Your task to perform on an android device: Open Maps and search for coffee Image 0: 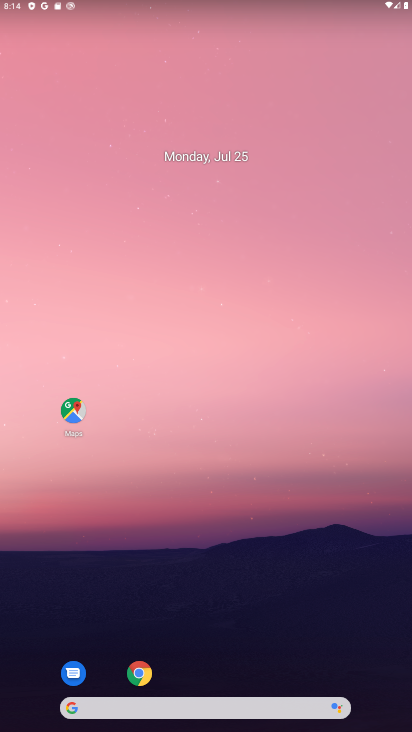
Step 0: click (91, 405)
Your task to perform on an android device: Open Maps and search for coffee Image 1: 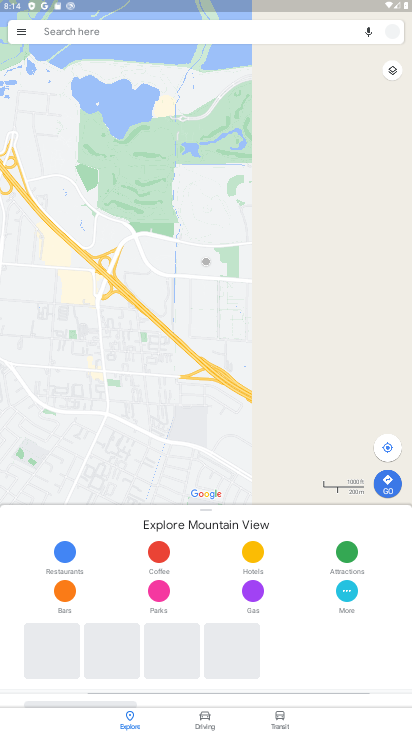
Step 1: task complete